Your task to perform on an android device: allow notifications from all sites in the chrome app Image 0: 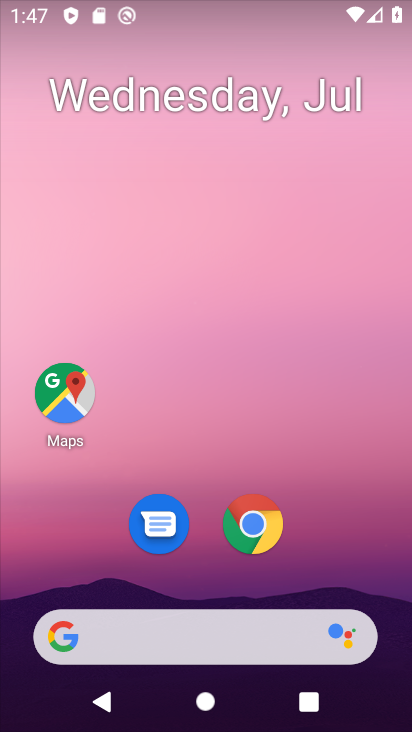
Step 0: click (260, 532)
Your task to perform on an android device: allow notifications from all sites in the chrome app Image 1: 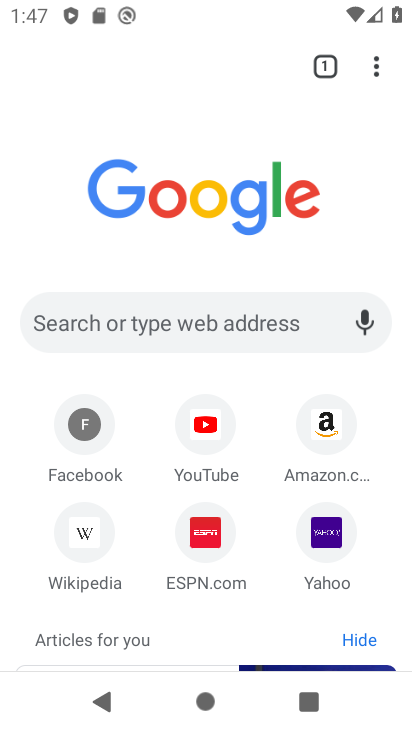
Step 1: click (377, 75)
Your task to perform on an android device: allow notifications from all sites in the chrome app Image 2: 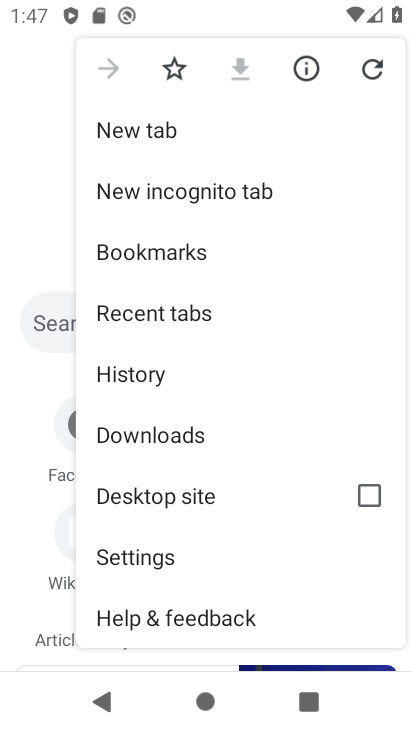
Step 2: click (149, 557)
Your task to perform on an android device: allow notifications from all sites in the chrome app Image 3: 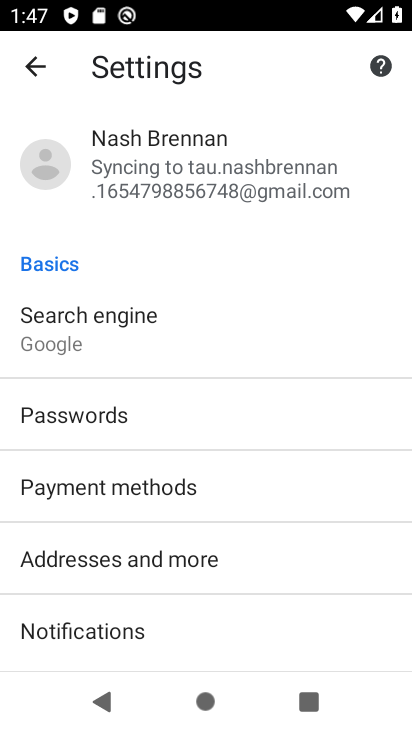
Step 3: click (143, 630)
Your task to perform on an android device: allow notifications from all sites in the chrome app Image 4: 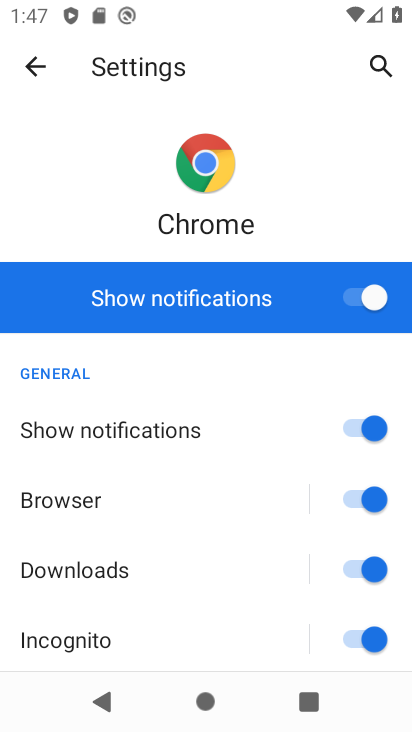
Step 4: task complete